Your task to perform on an android device: See recent photos Image 0: 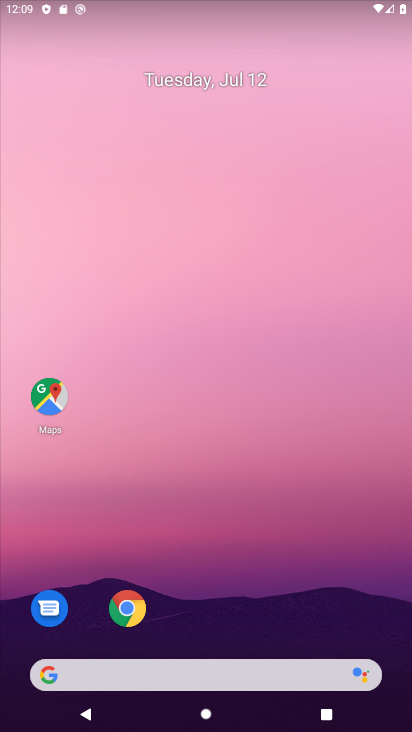
Step 0: drag from (317, 560) to (329, 211)
Your task to perform on an android device: See recent photos Image 1: 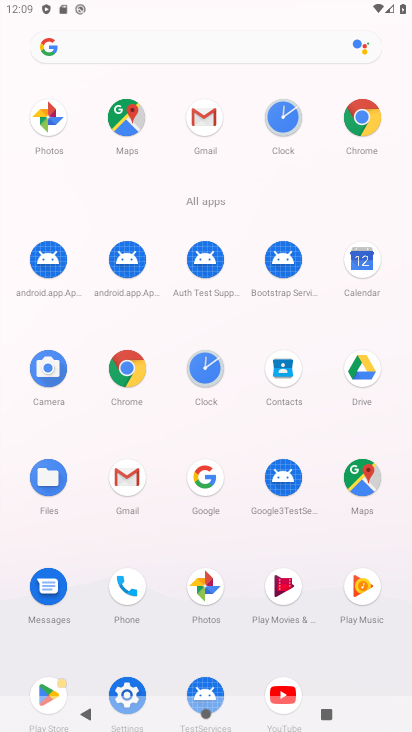
Step 1: click (217, 579)
Your task to perform on an android device: See recent photos Image 2: 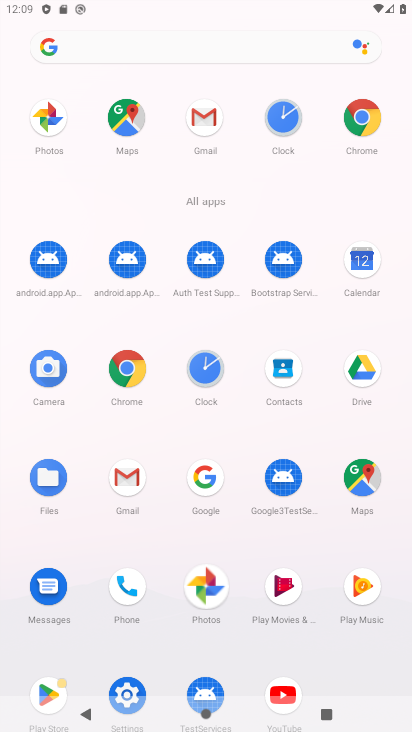
Step 2: click (211, 584)
Your task to perform on an android device: See recent photos Image 3: 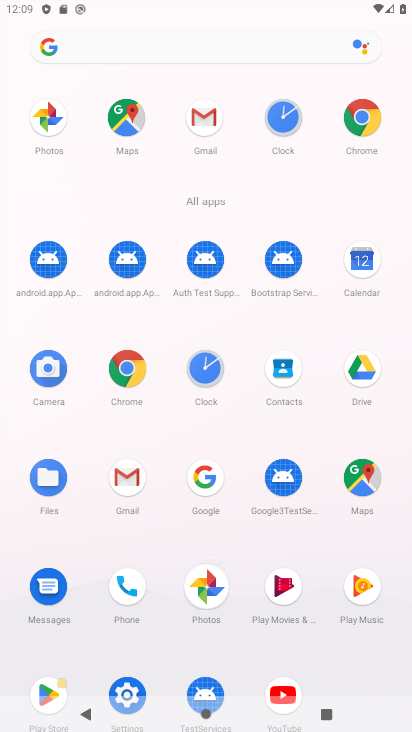
Step 3: click (211, 584)
Your task to perform on an android device: See recent photos Image 4: 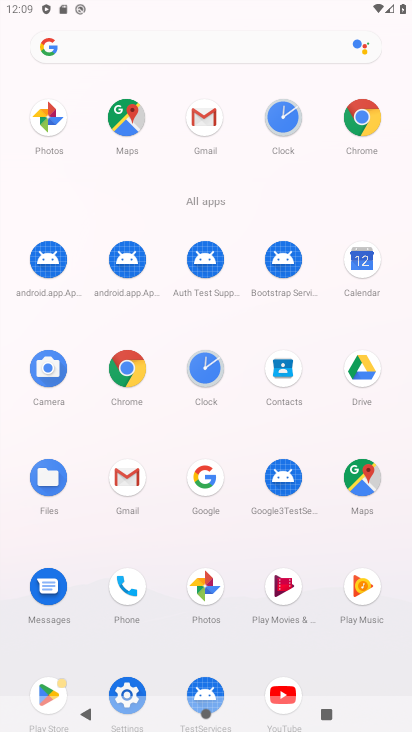
Step 4: click (213, 584)
Your task to perform on an android device: See recent photos Image 5: 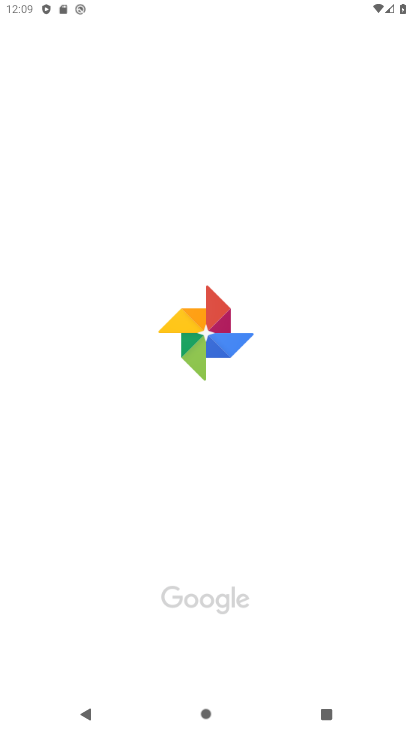
Step 5: click (214, 583)
Your task to perform on an android device: See recent photos Image 6: 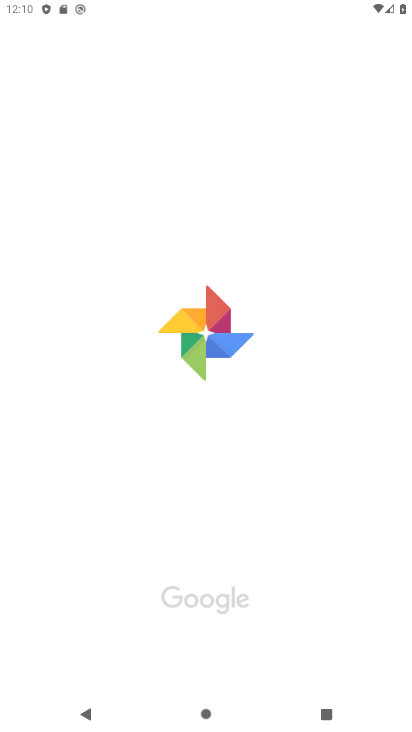
Step 6: click (214, 582)
Your task to perform on an android device: See recent photos Image 7: 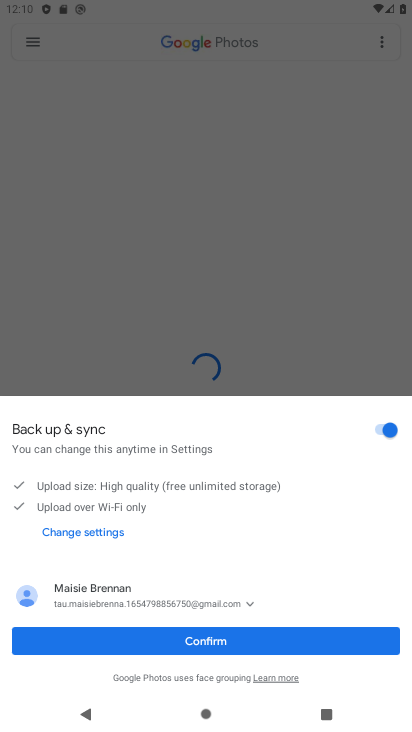
Step 7: click (296, 287)
Your task to perform on an android device: See recent photos Image 8: 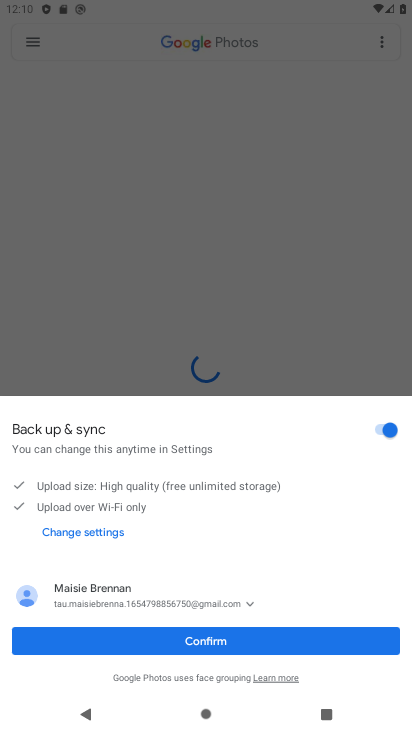
Step 8: click (301, 292)
Your task to perform on an android device: See recent photos Image 9: 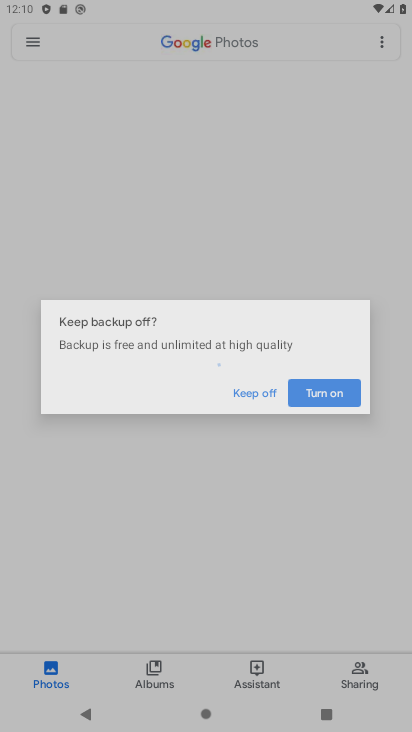
Step 9: click (304, 292)
Your task to perform on an android device: See recent photos Image 10: 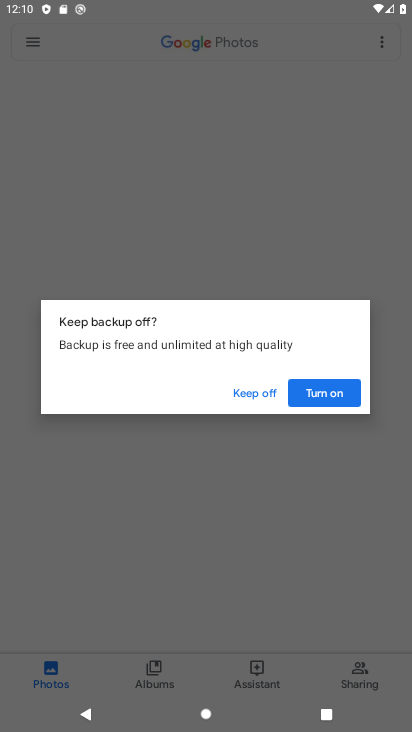
Step 10: click (304, 292)
Your task to perform on an android device: See recent photos Image 11: 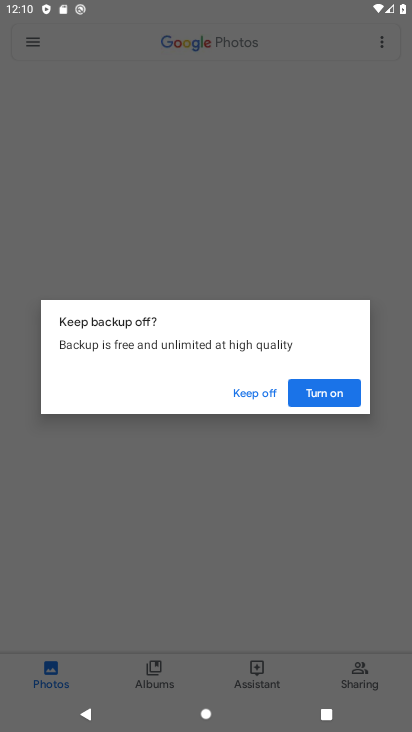
Step 11: click (257, 400)
Your task to perform on an android device: See recent photos Image 12: 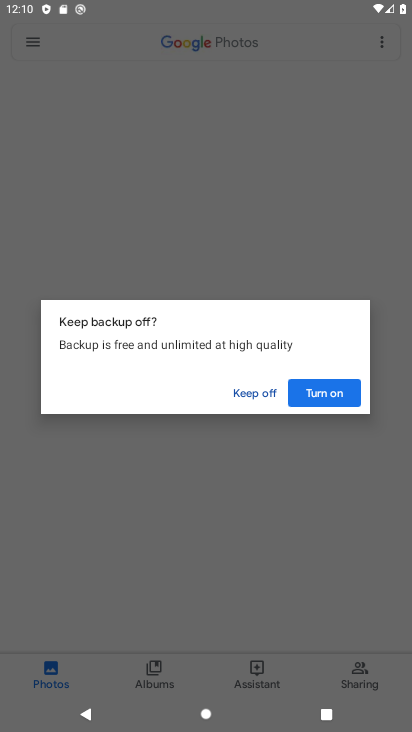
Step 12: click (261, 391)
Your task to perform on an android device: See recent photos Image 13: 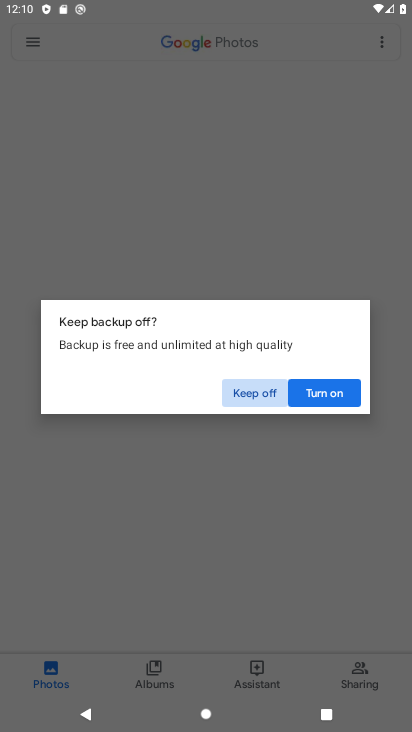
Step 13: click (264, 391)
Your task to perform on an android device: See recent photos Image 14: 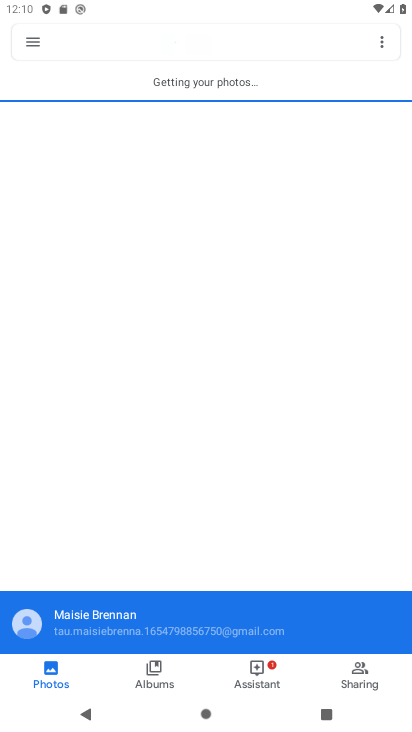
Step 14: click (29, 29)
Your task to perform on an android device: See recent photos Image 15: 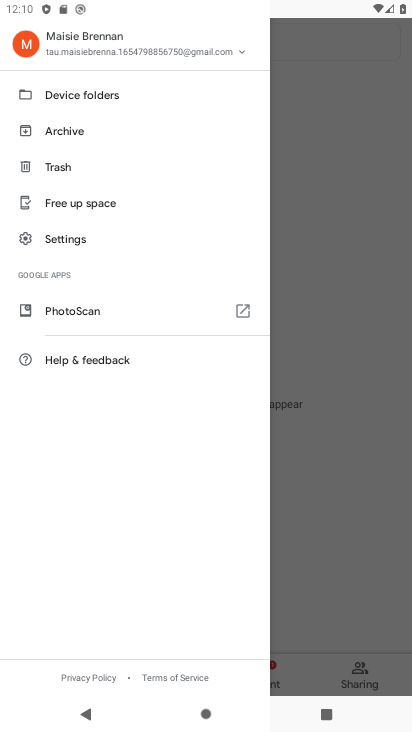
Step 15: click (305, 235)
Your task to perform on an android device: See recent photos Image 16: 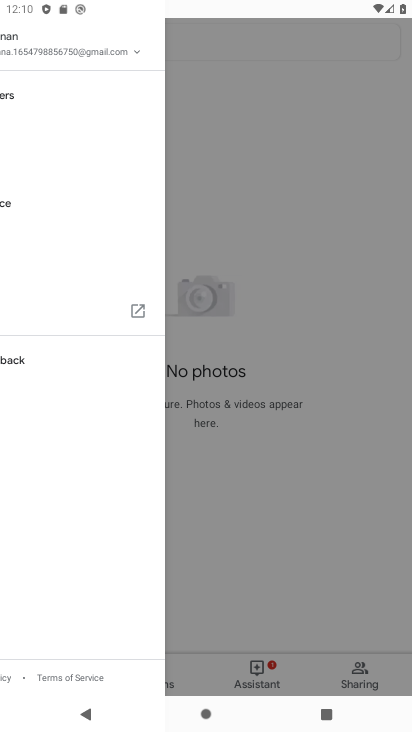
Step 16: click (305, 235)
Your task to perform on an android device: See recent photos Image 17: 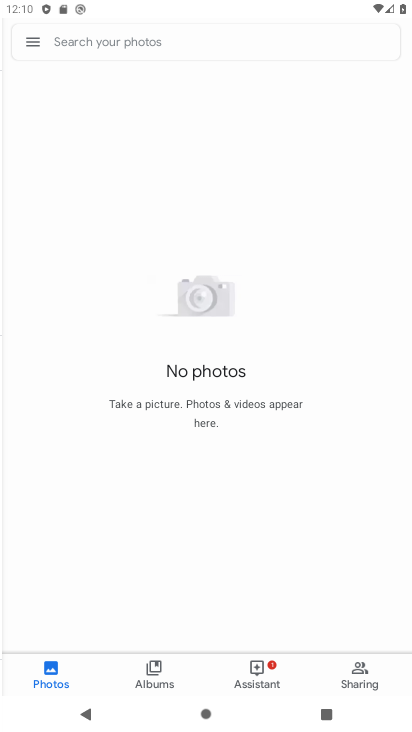
Step 17: click (305, 235)
Your task to perform on an android device: See recent photos Image 18: 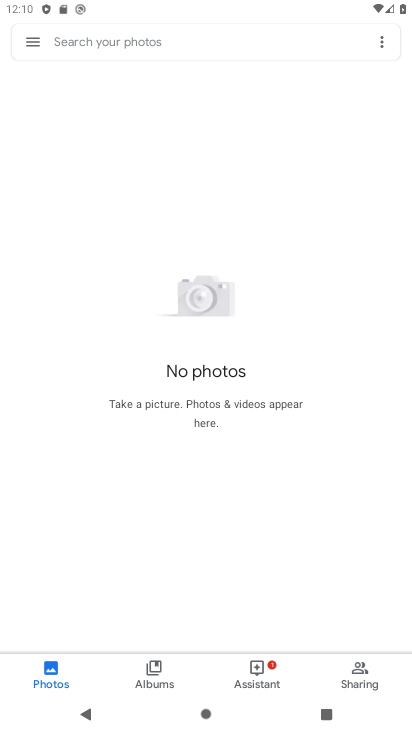
Step 18: click (305, 235)
Your task to perform on an android device: See recent photos Image 19: 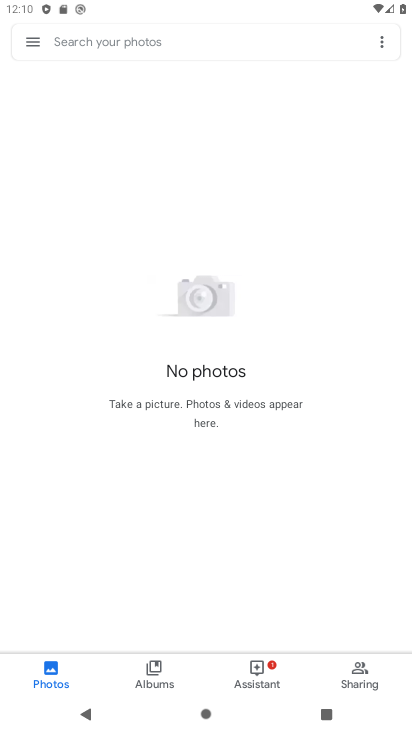
Step 19: task complete